Your task to perform on an android device: install app "ZOOM Cloud Meetings" Image 0: 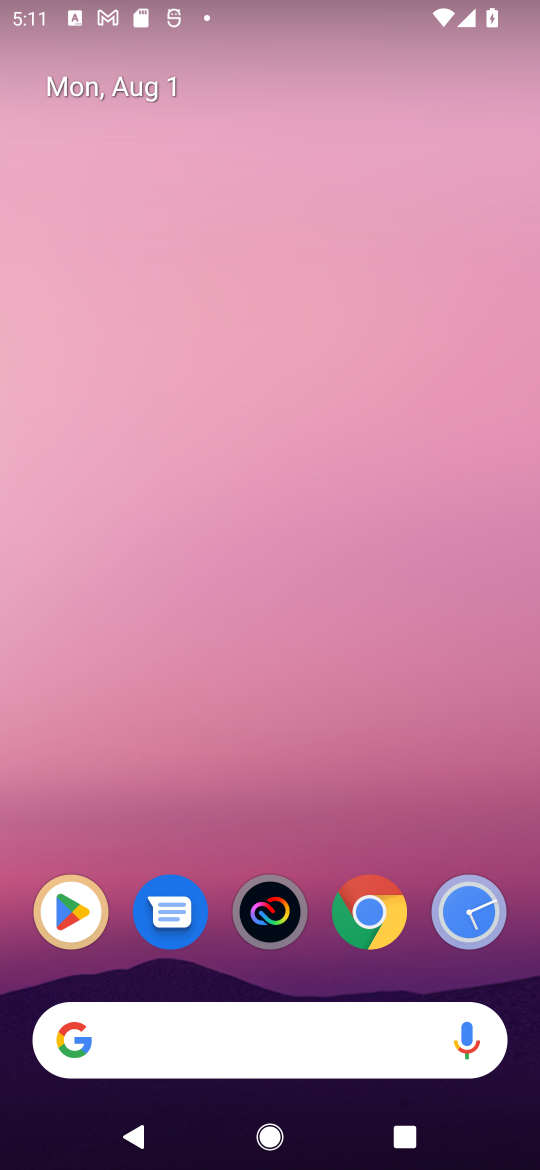
Step 0: click (61, 939)
Your task to perform on an android device: install app "ZOOM Cloud Meetings" Image 1: 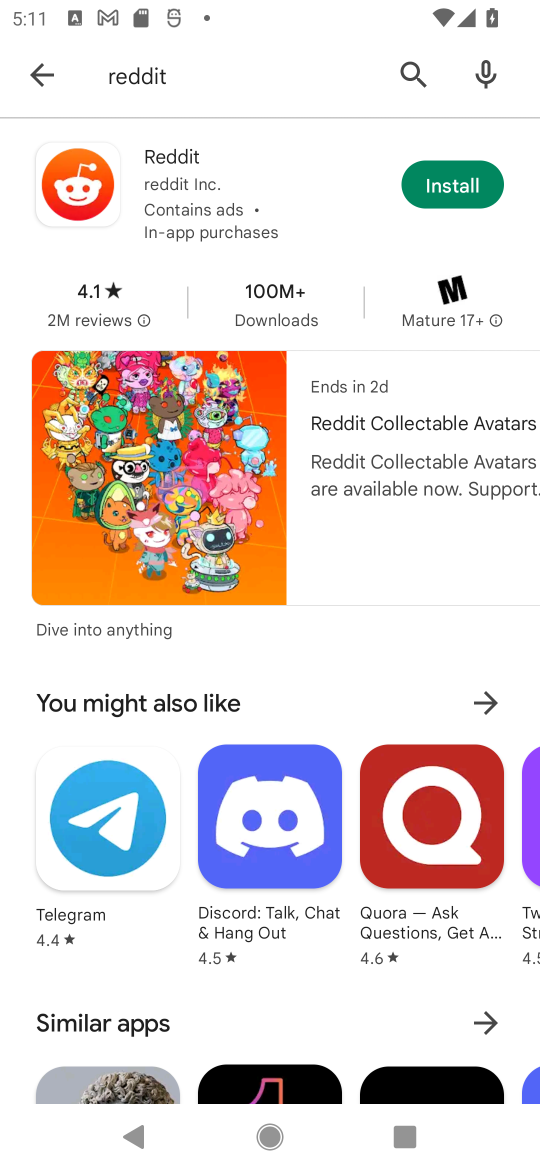
Step 1: click (394, 74)
Your task to perform on an android device: install app "ZOOM Cloud Meetings" Image 2: 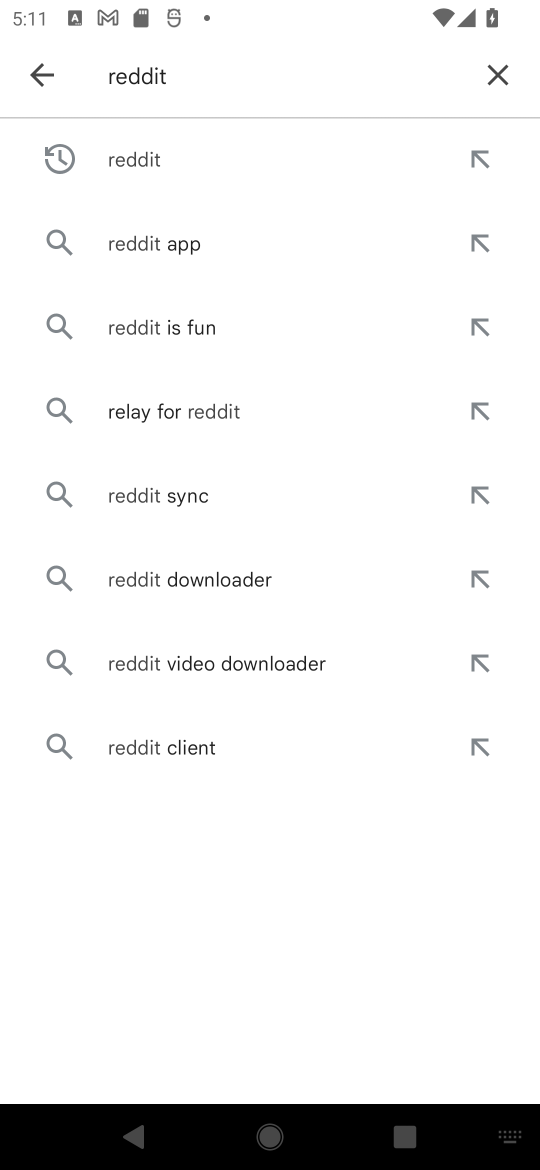
Step 2: click (489, 67)
Your task to perform on an android device: install app "ZOOM Cloud Meetings" Image 3: 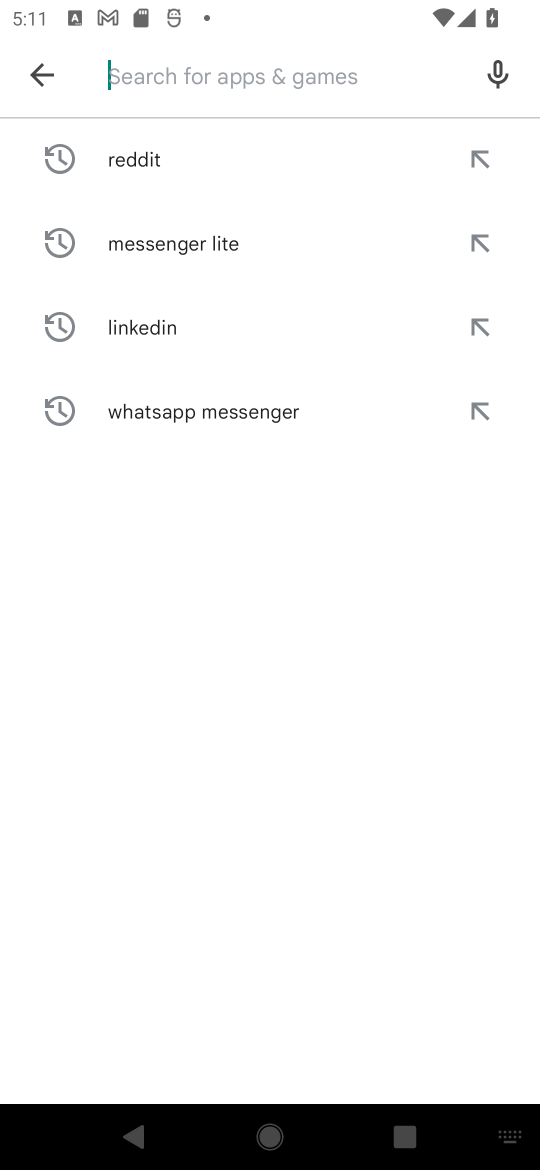
Step 3: type "ZOOM Cloud Meetings"
Your task to perform on an android device: install app "ZOOM Cloud Meetings" Image 4: 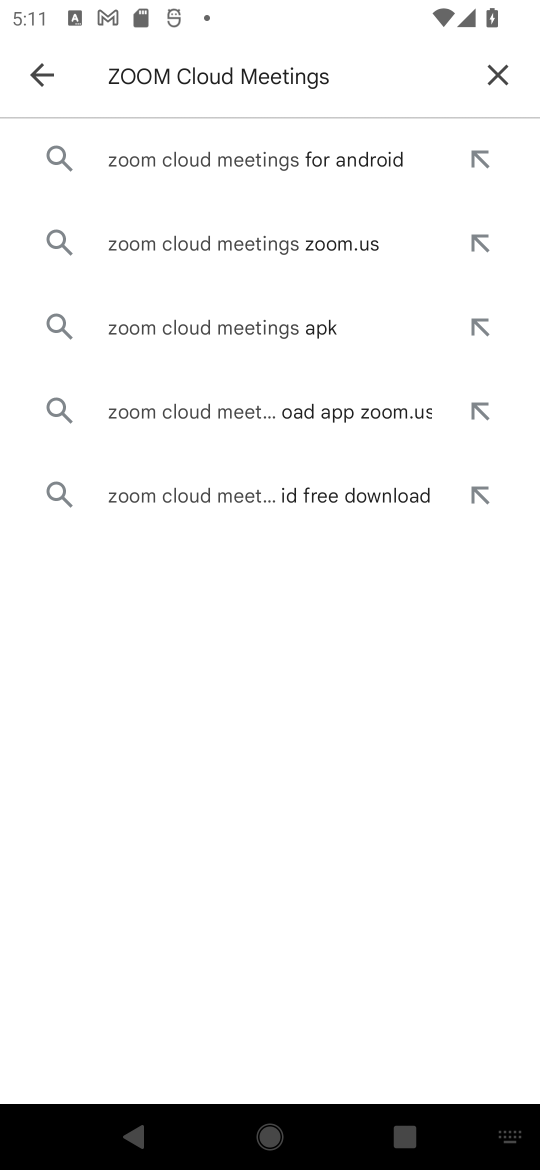
Step 4: click (236, 174)
Your task to perform on an android device: install app "ZOOM Cloud Meetings" Image 5: 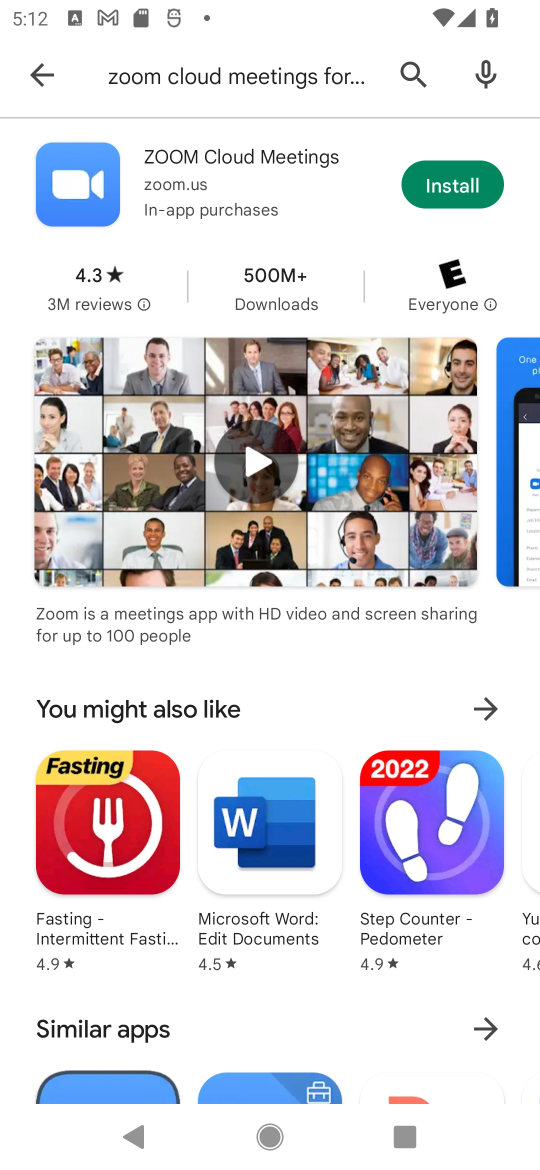
Step 5: click (469, 173)
Your task to perform on an android device: install app "ZOOM Cloud Meetings" Image 6: 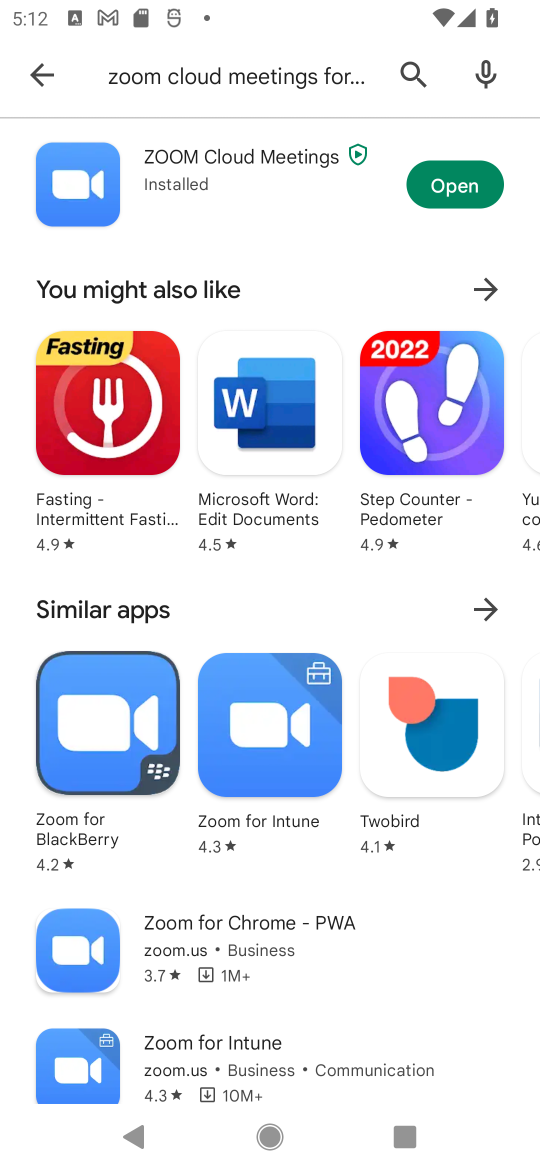
Step 6: task complete